Your task to perform on an android device: Open privacy settings Image 0: 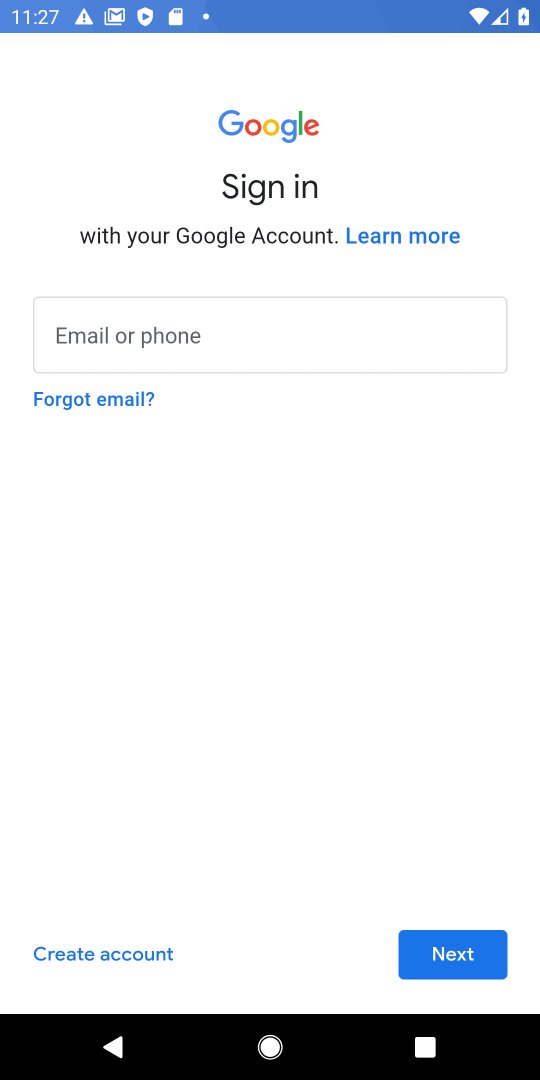
Step 0: press home button
Your task to perform on an android device: Open privacy settings Image 1: 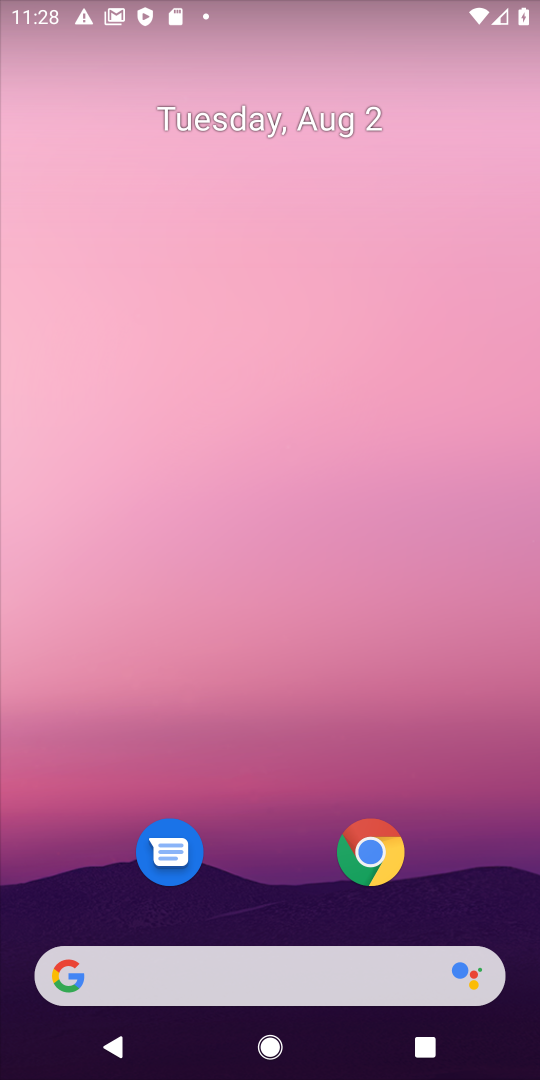
Step 1: drag from (277, 821) to (115, 13)
Your task to perform on an android device: Open privacy settings Image 2: 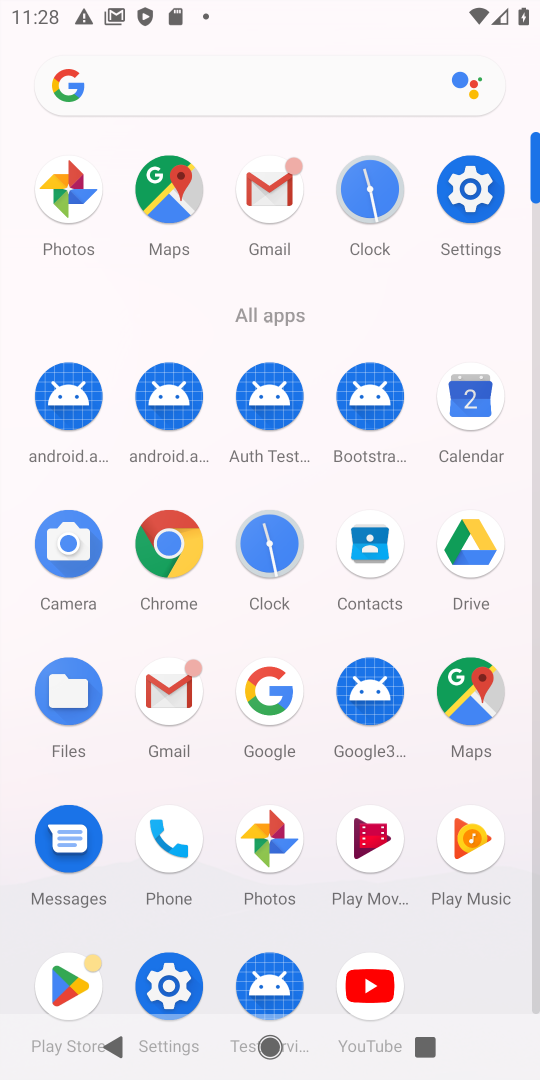
Step 2: click (156, 998)
Your task to perform on an android device: Open privacy settings Image 3: 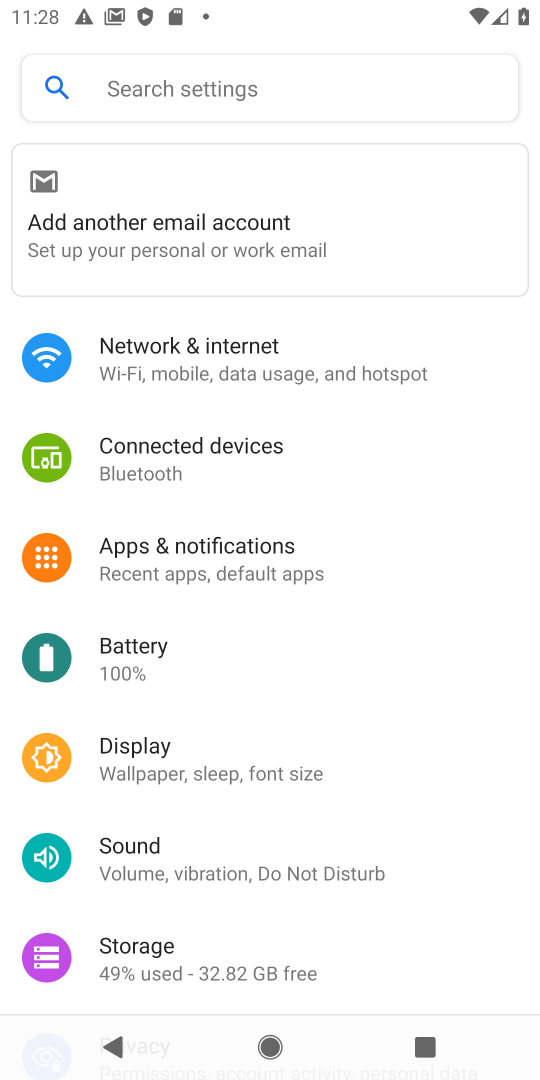
Step 3: drag from (122, 939) to (132, 297)
Your task to perform on an android device: Open privacy settings Image 4: 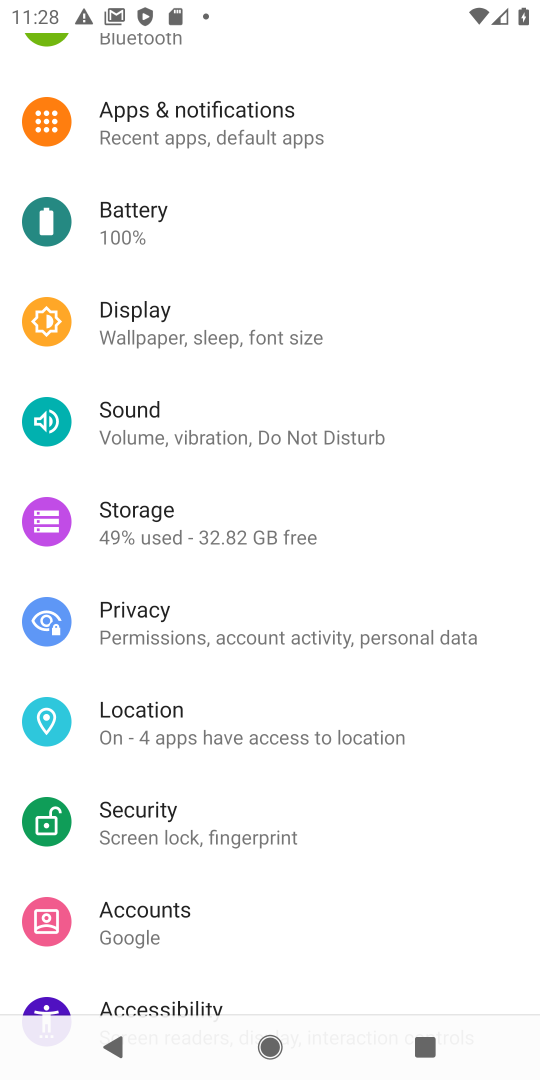
Step 4: click (174, 621)
Your task to perform on an android device: Open privacy settings Image 5: 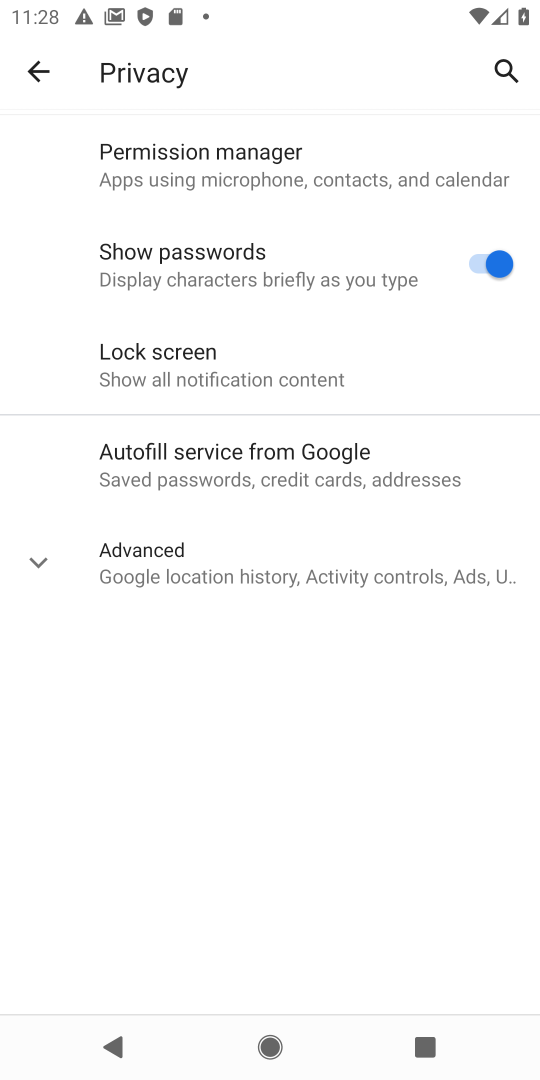
Step 5: task complete